Your task to perform on an android device: clear history in the chrome app Image 0: 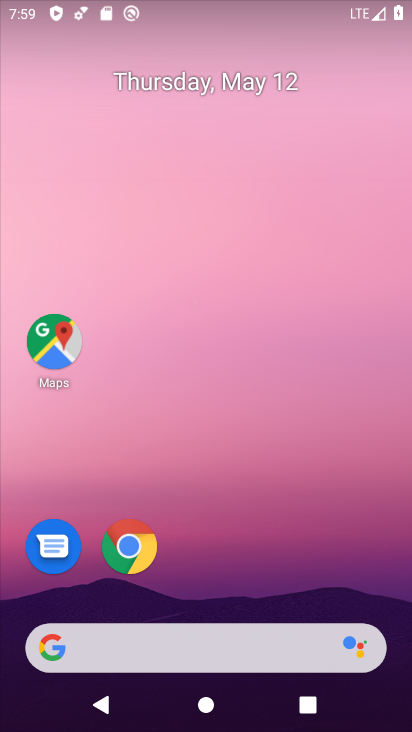
Step 0: click (143, 530)
Your task to perform on an android device: clear history in the chrome app Image 1: 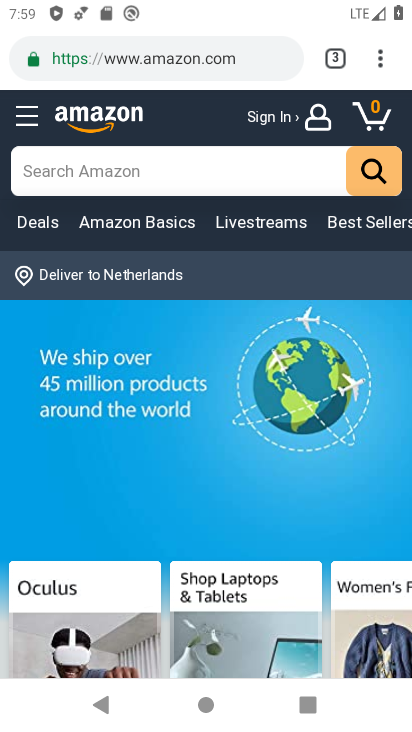
Step 1: click (381, 45)
Your task to perform on an android device: clear history in the chrome app Image 2: 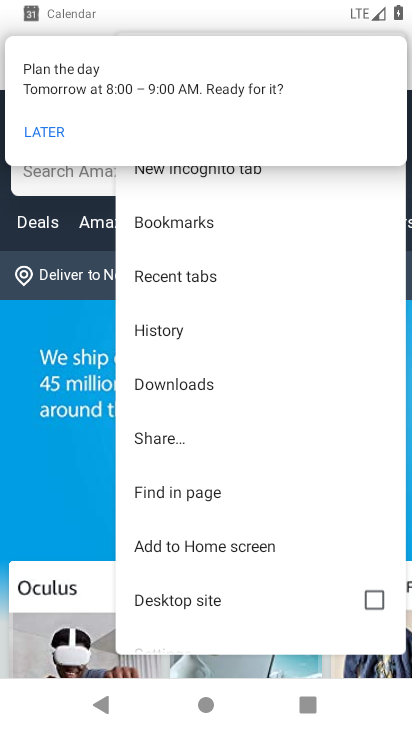
Step 2: click (190, 328)
Your task to perform on an android device: clear history in the chrome app Image 3: 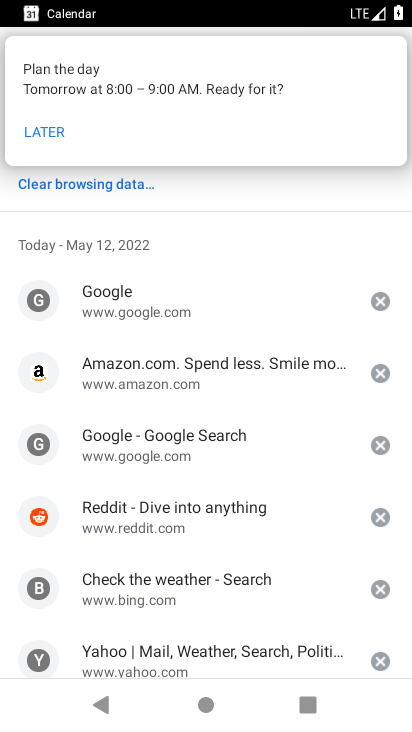
Step 3: click (51, 131)
Your task to perform on an android device: clear history in the chrome app Image 4: 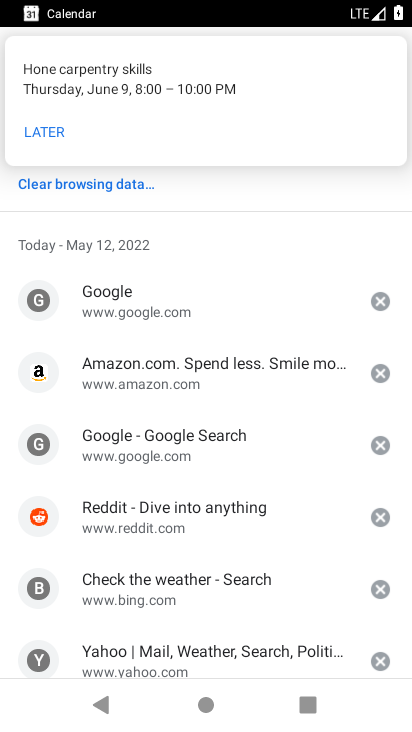
Step 4: click (105, 186)
Your task to perform on an android device: clear history in the chrome app Image 5: 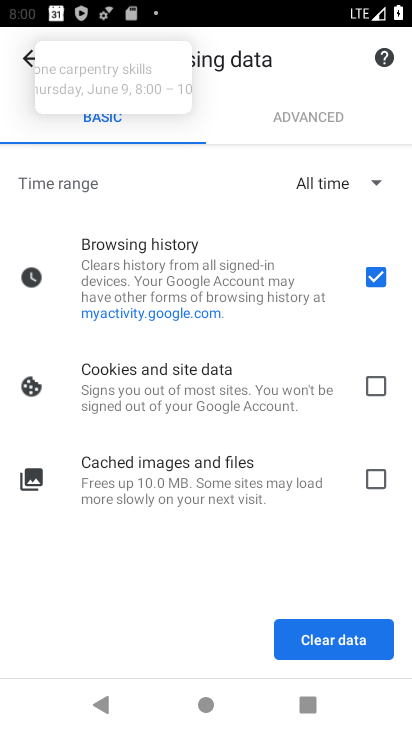
Step 5: click (44, 129)
Your task to perform on an android device: clear history in the chrome app Image 6: 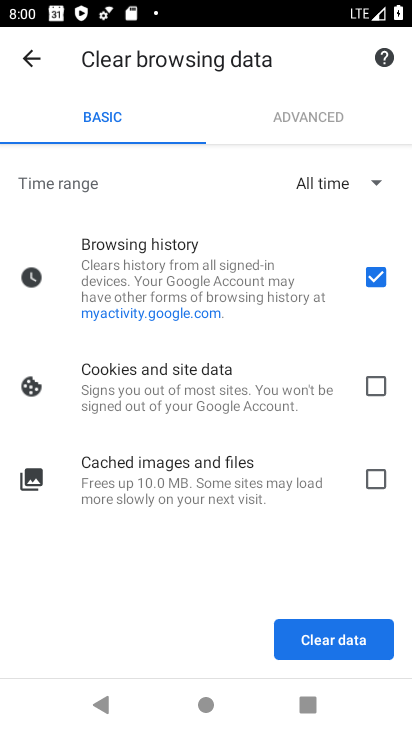
Step 6: click (351, 634)
Your task to perform on an android device: clear history in the chrome app Image 7: 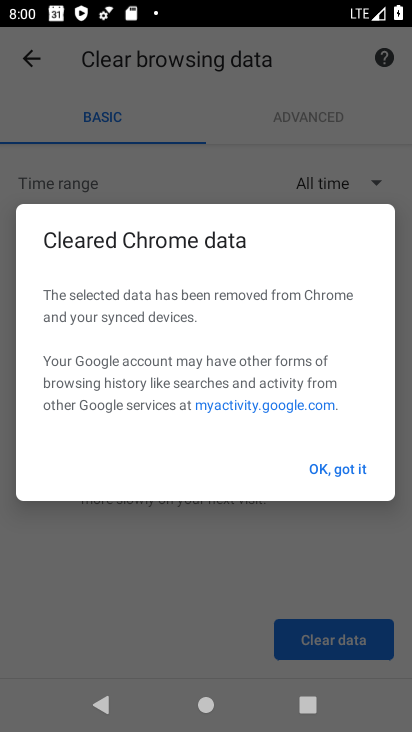
Step 7: click (357, 461)
Your task to perform on an android device: clear history in the chrome app Image 8: 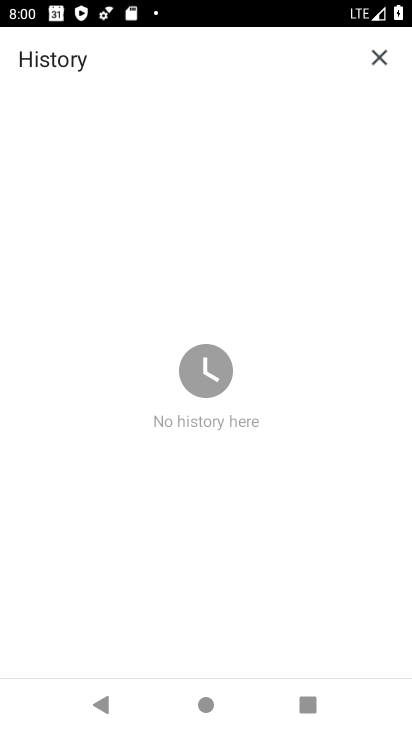
Step 8: task complete